Your task to perform on an android device: turn on notifications settings in the gmail app Image 0: 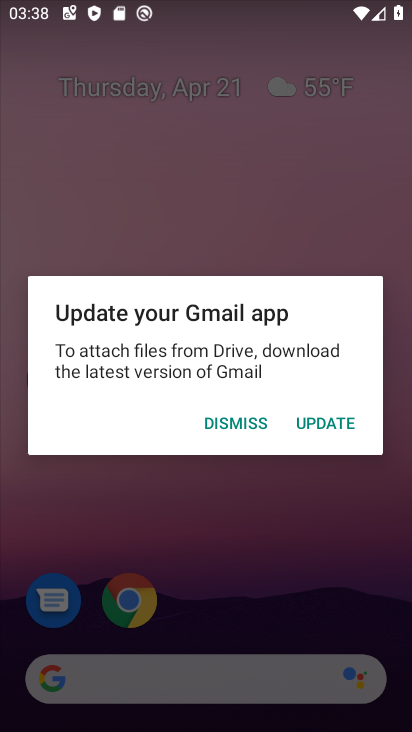
Step 0: press home button
Your task to perform on an android device: turn on notifications settings in the gmail app Image 1: 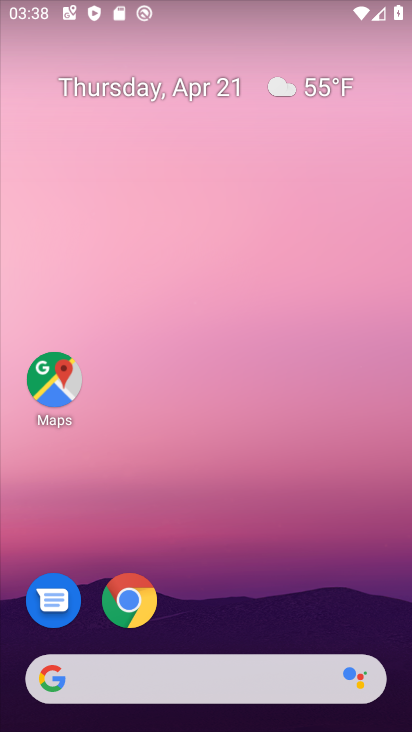
Step 1: drag from (203, 625) to (212, 75)
Your task to perform on an android device: turn on notifications settings in the gmail app Image 2: 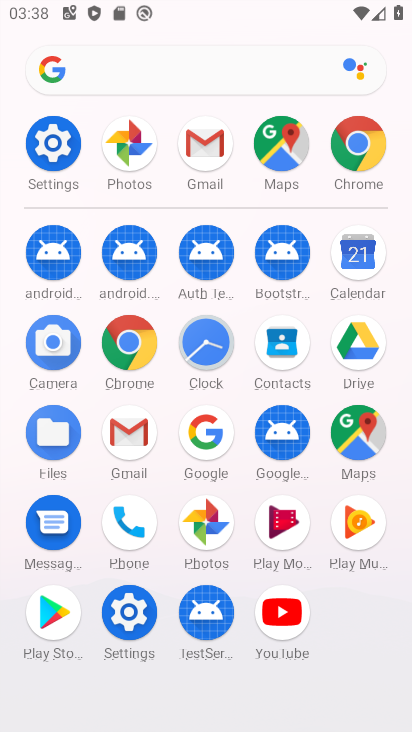
Step 2: click (137, 445)
Your task to perform on an android device: turn on notifications settings in the gmail app Image 3: 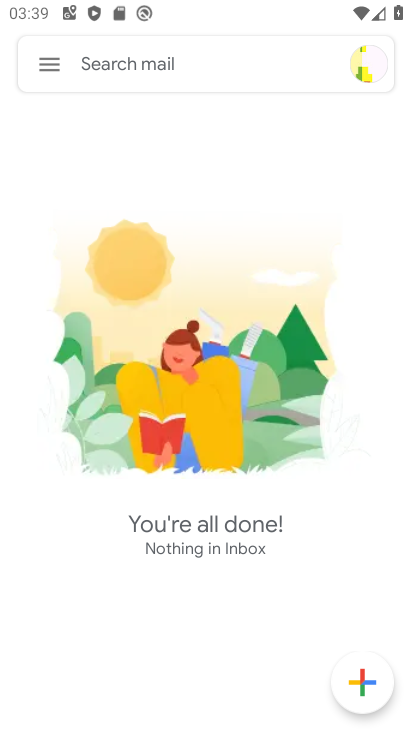
Step 3: click (34, 53)
Your task to perform on an android device: turn on notifications settings in the gmail app Image 4: 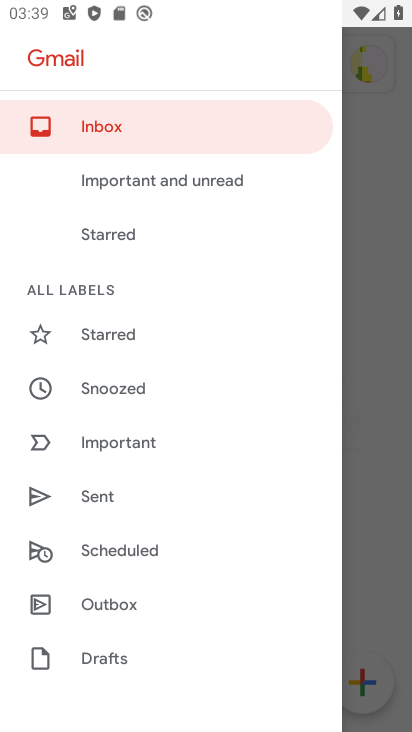
Step 4: drag from (152, 535) to (196, 294)
Your task to perform on an android device: turn on notifications settings in the gmail app Image 5: 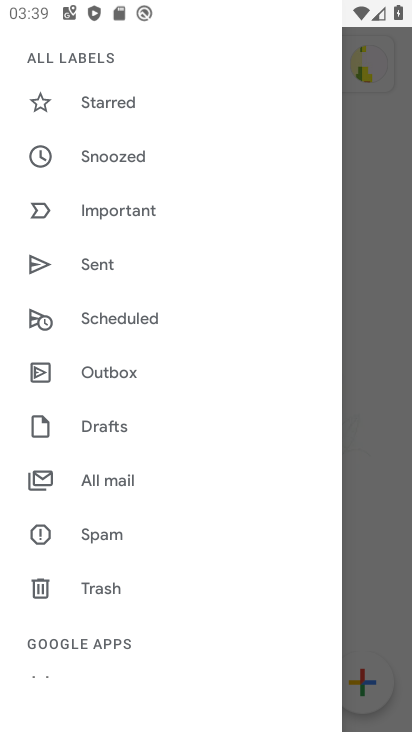
Step 5: drag from (183, 614) to (179, 274)
Your task to perform on an android device: turn on notifications settings in the gmail app Image 6: 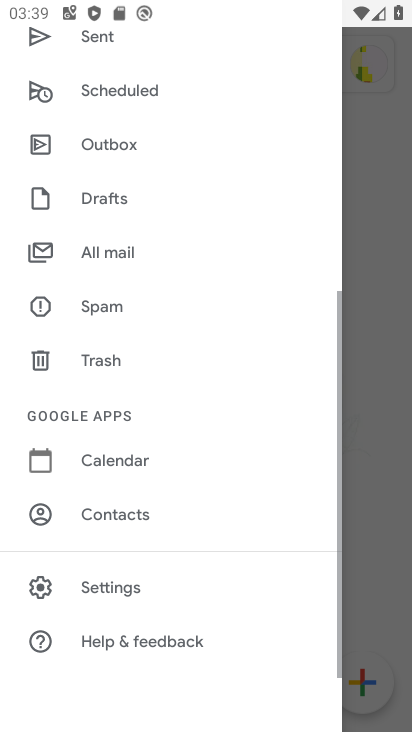
Step 6: click (138, 588)
Your task to perform on an android device: turn on notifications settings in the gmail app Image 7: 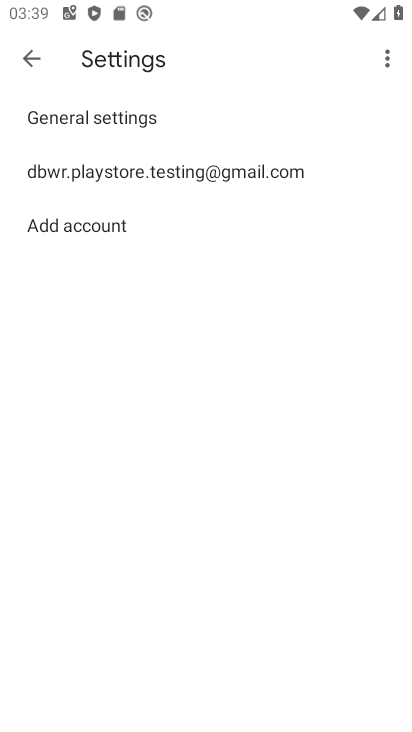
Step 7: click (156, 179)
Your task to perform on an android device: turn on notifications settings in the gmail app Image 8: 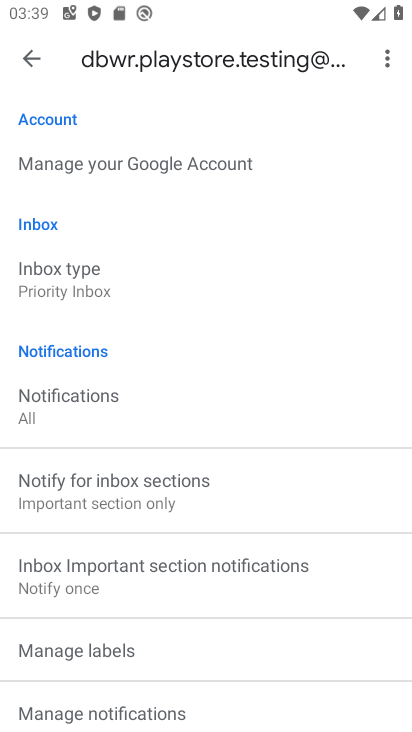
Step 8: drag from (150, 607) to (209, 349)
Your task to perform on an android device: turn on notifications settings in the gmail app Image 9: 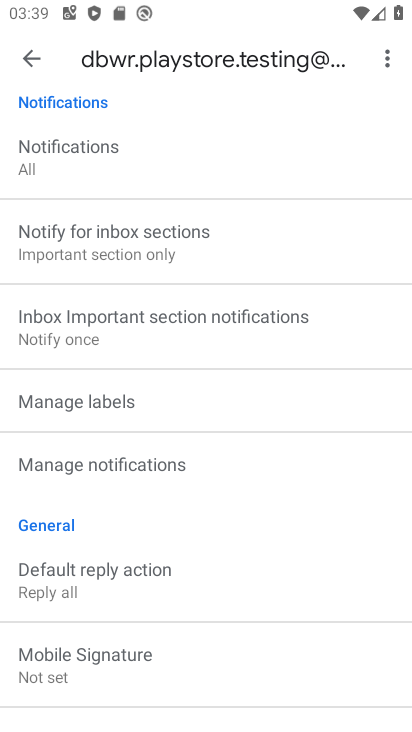
Step 9: click (151, 475)
Your task to perform on an android device: turn on notifications settings in the gmail app Image 10: 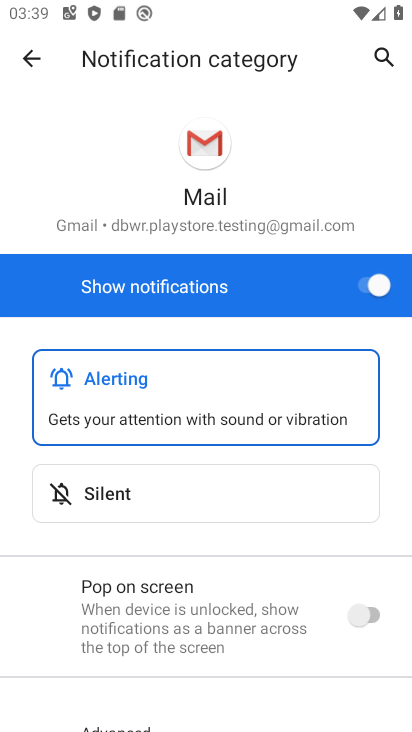
Step 10: task complete